Your task to perform on an android device: choose inbox layout in the gmail app Image 0: 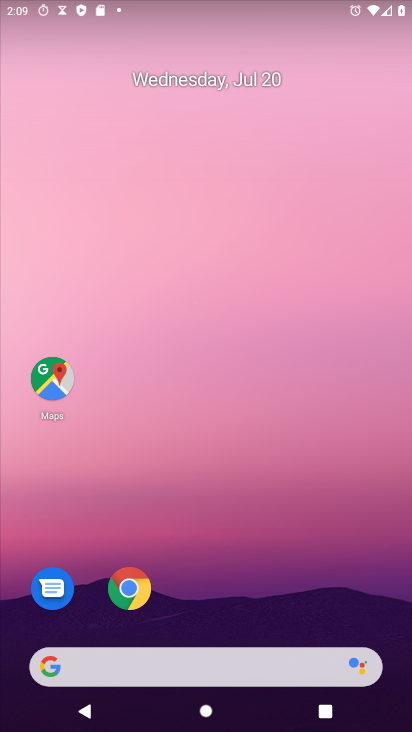
Step 0: drag from (190, 688) to (235, 5)
Your task to perform on an android device: choose inbox layout in the gmail app Image 1: 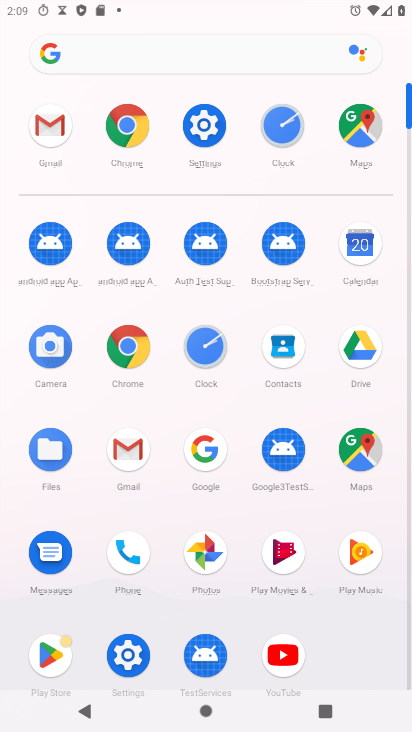
Step 1: click (120, 452)
Your task to perform on an android device: choose inbox layout in the gmail app Image 2: 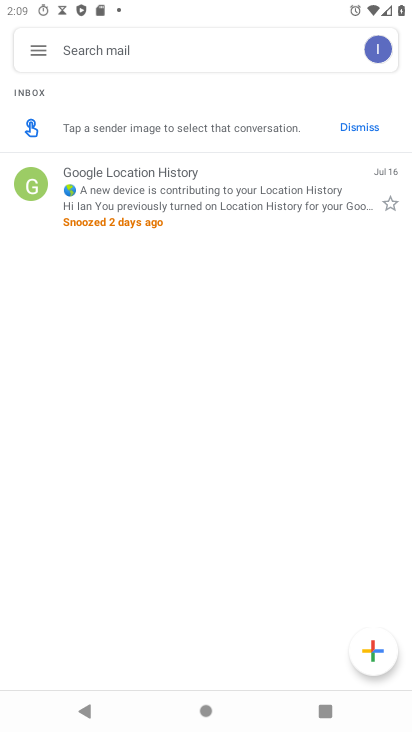
Step 2: click (43, 56)
Your task to perform on an android device: choose inbox layout in the gmail app Image 3: 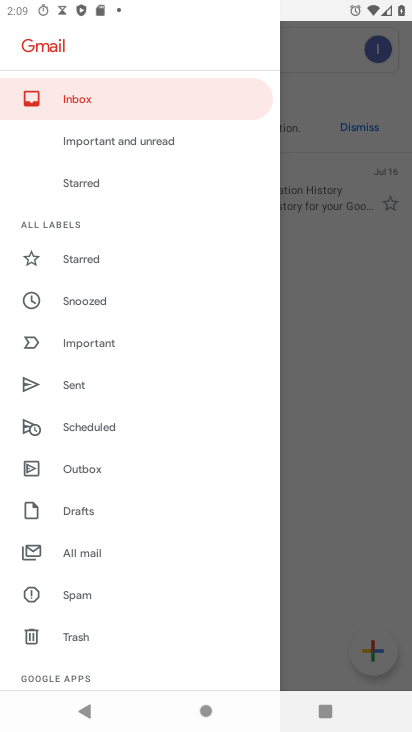
Step 3: drag from (125, 659) to (153, 133)
Your task to perform on an android device: choose inbox layout in the gmail app Image 4: 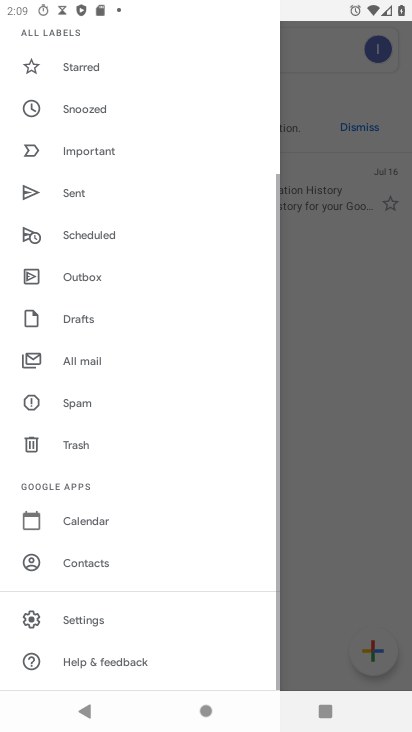
Step 4: click (97, 626)
Your task to perform on an android device: choose inbox layout in the gmail app Image 5: 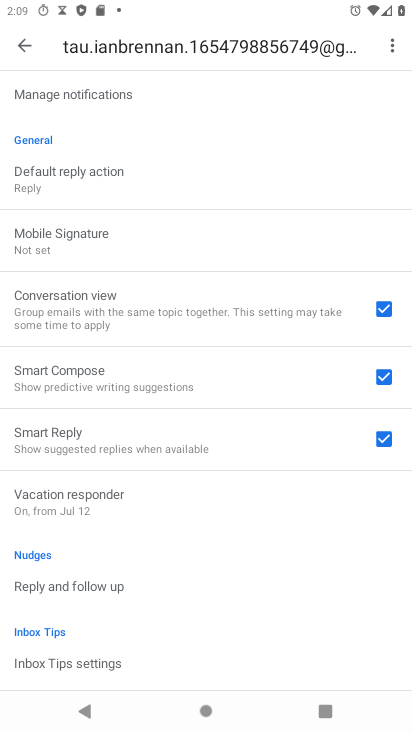
Step 5: drag from (169, 90) to (150, 694)
Your task to perform on an android device: choose inbox layout in the gmail app Image 6: 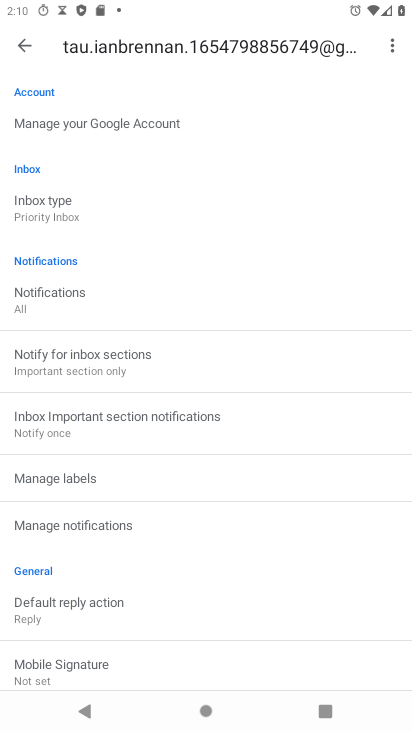
Step 6: click (71, 201)
Your task to perform on an android device: choose inbox layout in the gmail app Image 7: 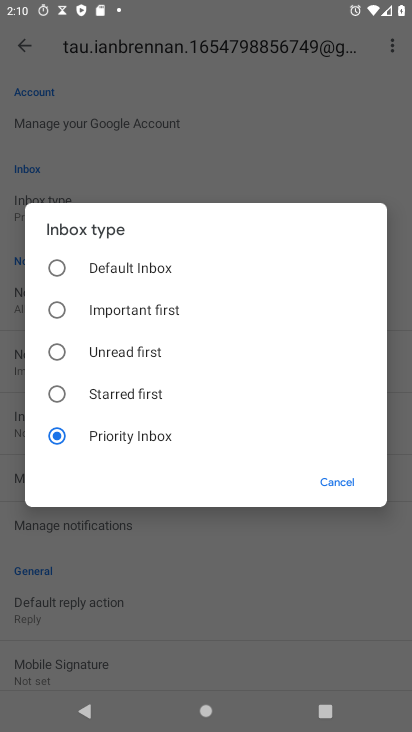
Step 7: click (54, 269)
Your task to perform on an android device: choose inbox layout in the gmail app Image 8: 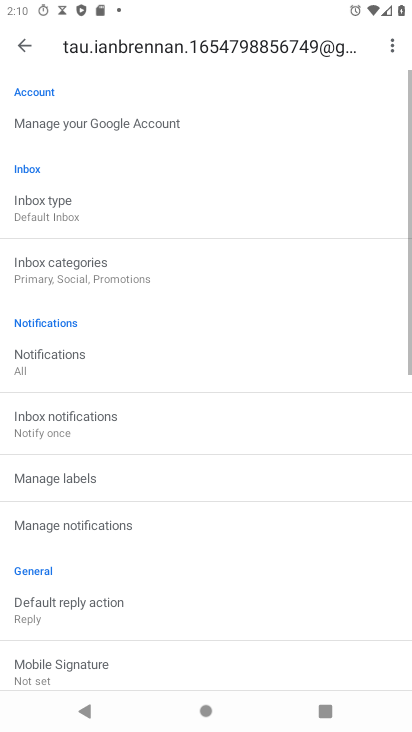
Step 8: task complete